Your task to perform on an android device: open chrome and create a bookmark for the current page Image 0: 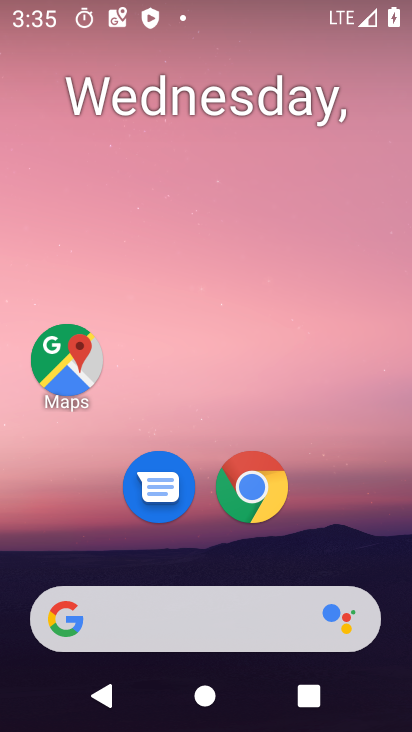
Step 0: drag from (232, 574) to (281, 210)
Your task to perform on an android device: open chrome and create a bookmark for the current page Image 1: 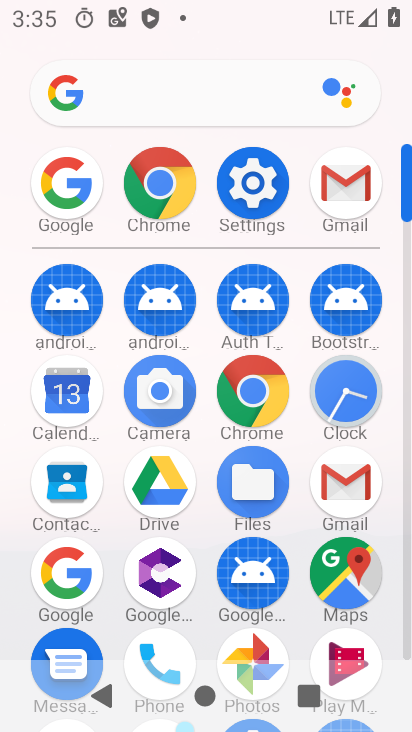
Step 1: click (164, 205)
Your task to perform on an android device: open chrome and create a bookmark for the current page Image 2: 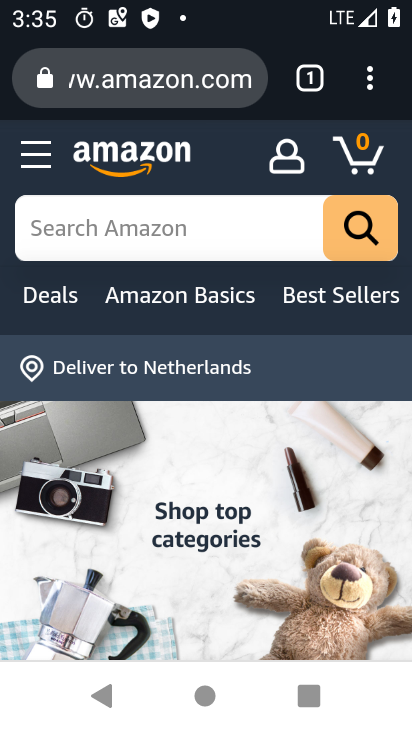
Step 2: click (376, 89)
Your task to perform on an android device: open chrome and create a bookmark for the current page Image 3: 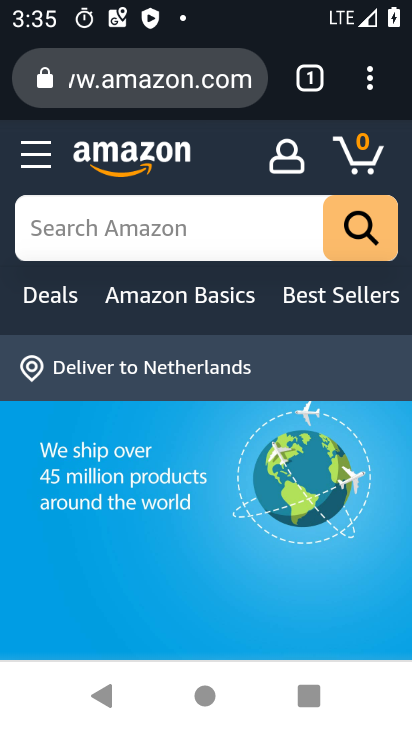
Step 3: click (373, 81)
Your task to perform on an android device: open chrome and create a bookmark for the current page Image 4: 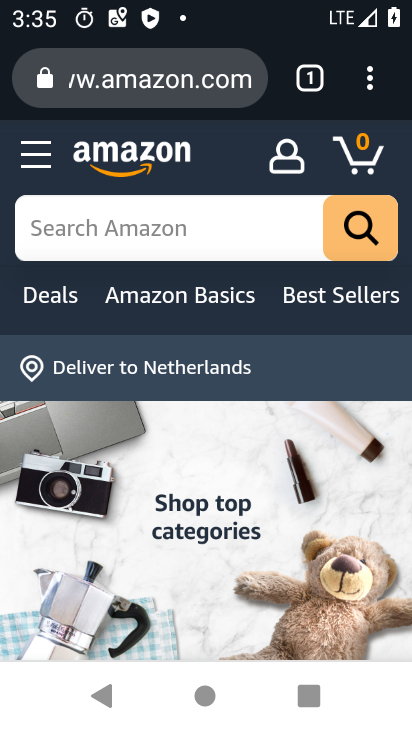
Step 4: click (376, 74)
Your task to perform on an android device: open chrome and create a bookmark for the current page Image 5: 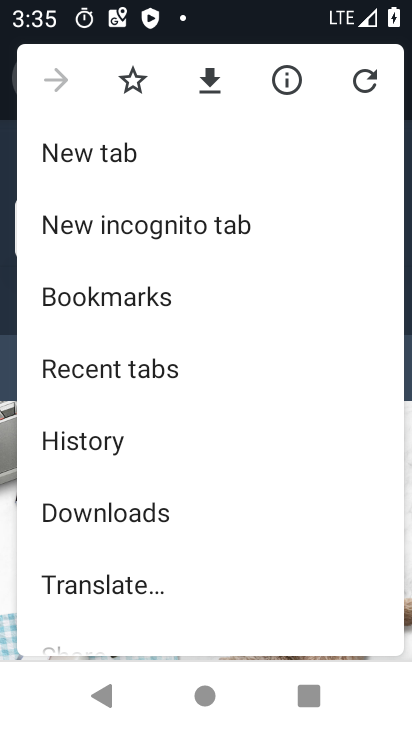
Step 5: click (135, 77)
Your task to perform on an android device: open chrome and create a bookmark for the current page Image 6: 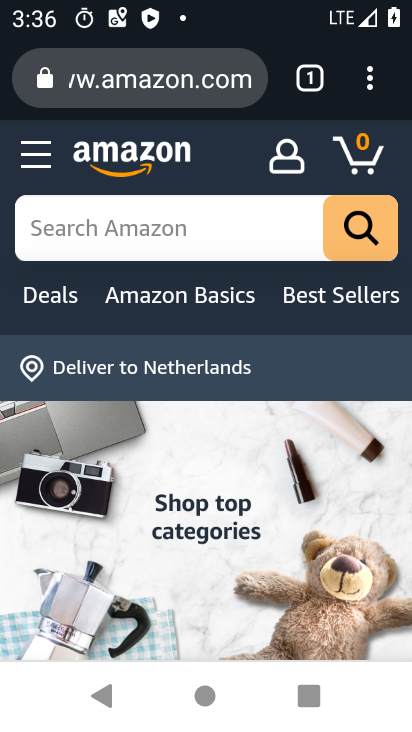
Step 6: task complete